Your task to perform on an android device: Open calendar and show me the third week of next month Image 0: 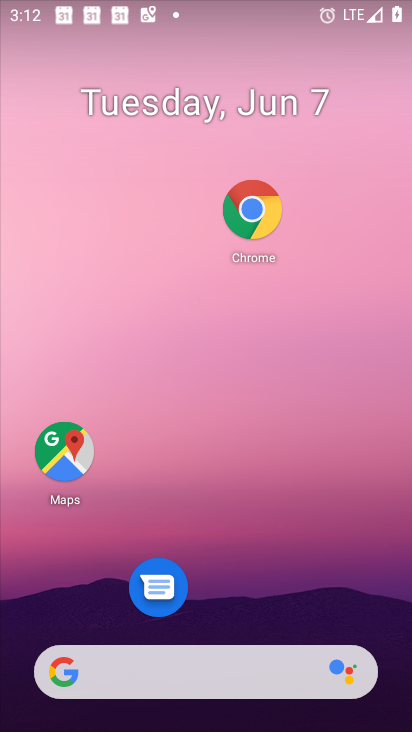
Step 0: drag from (163, 501) to (225, 209)
Your task to perform on an android device: Open calendar and show me the third week of next month Image 1: 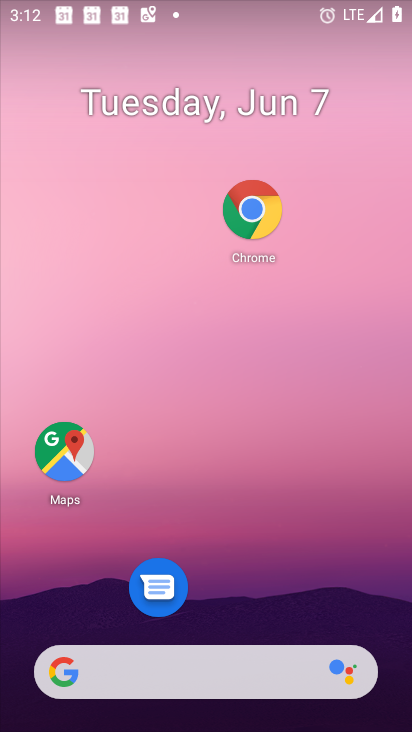
Step 1: drag from (175, 555) to (220, 103)
Your task to perform on an android device: Open calendar and show me the third week of next month Image 2: 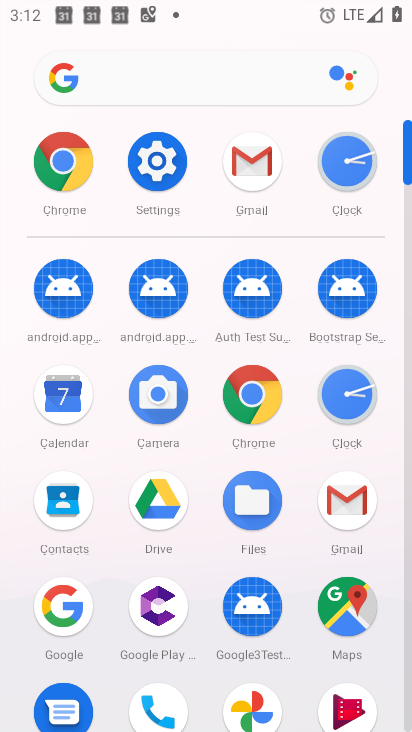
Step 2: click (57, 415)
Your task to perform on an android device: Open calendar and show me the third week of next month Image 3: 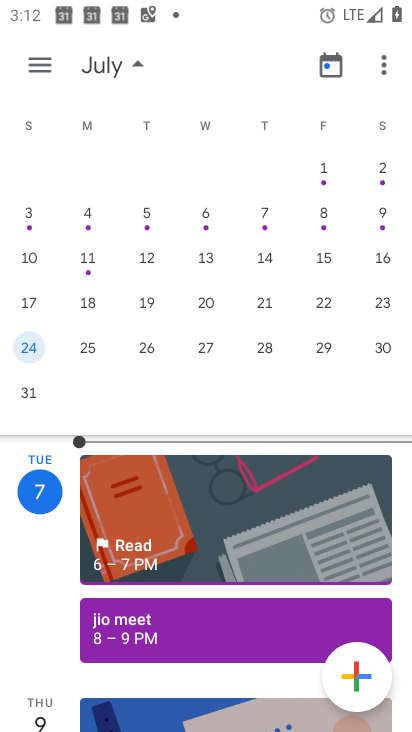
Step 3: click (23, 314)
Your task to perform on an android device: Open calendar and show me the third week of next month Image 4: 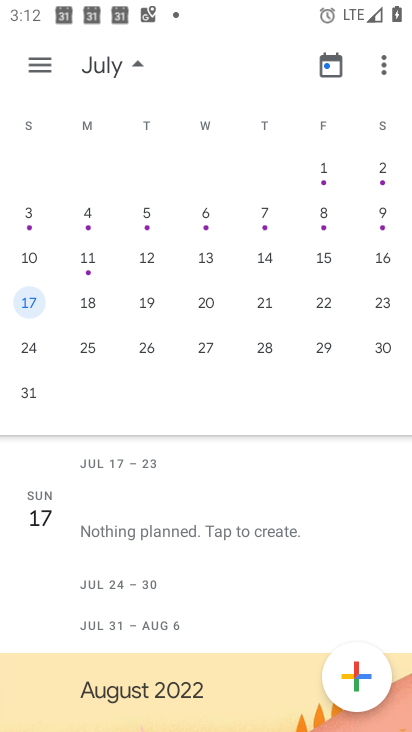
Step 4: task complete